Your task to perform on an android device: empty trash in the gmail app Image 0: 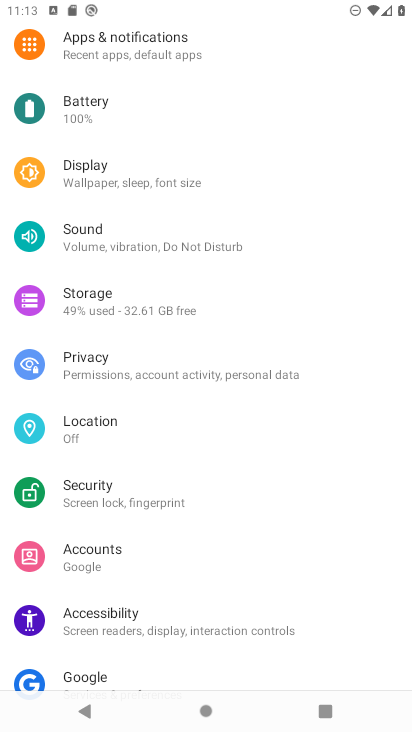
Step 0: press home button
Your task to perform on an android device: empty trash in the gmail app Image 1: 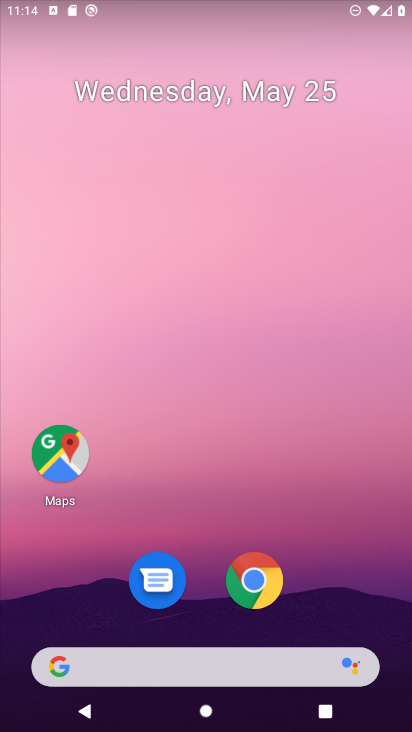
Step 1: drag from (66, 489) to (231, 153)
Your task to perform on an android device: empty trash in the gmail app Image 2: 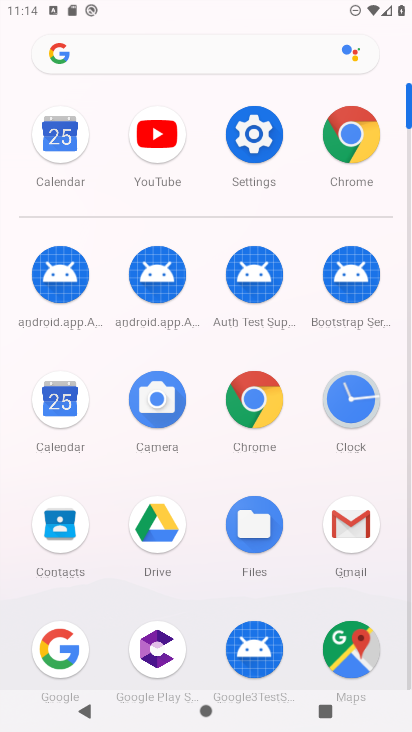
Step 2: click (355, 543)
Your task to perform on an android device: empty trash in the gmail app Image 3: 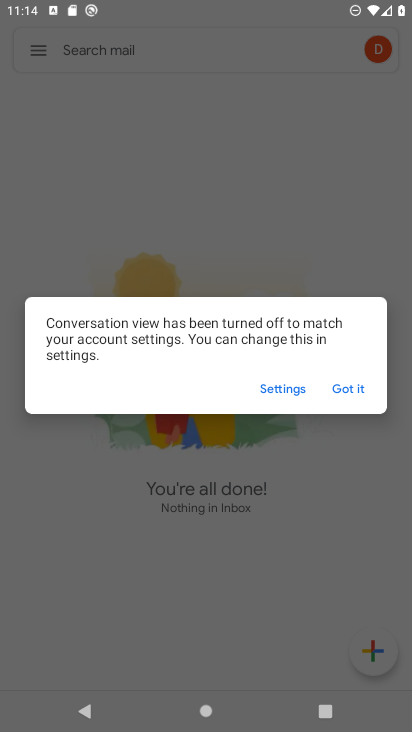
Step 3: click (353, 390)
Your task to perform on an android device: empty trash in the gmail app Image 4: 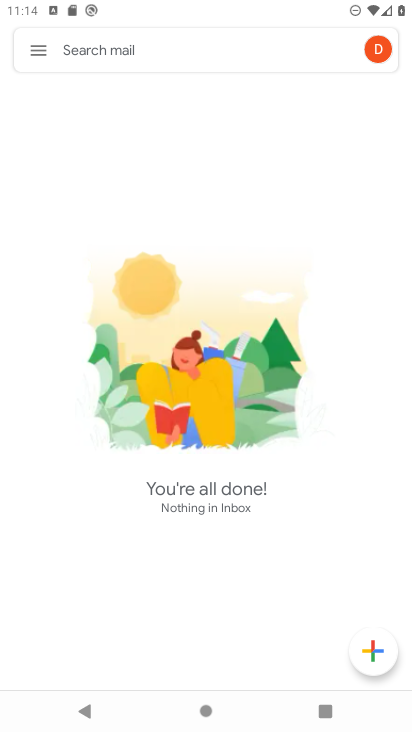
Step 4: click (28, 48)
Your task to perform on an android device: empty trash in the gmail app Image 5: 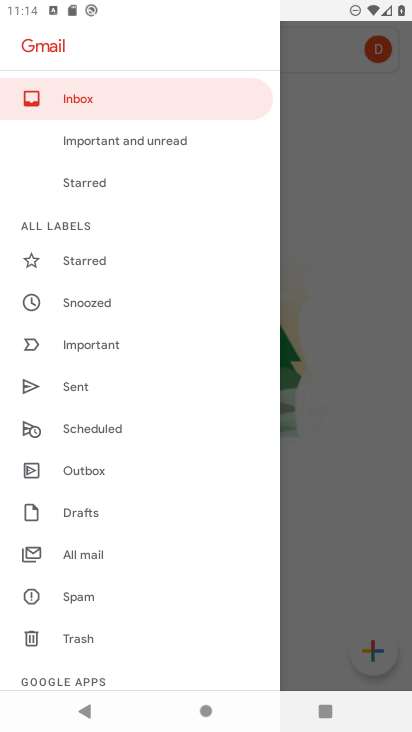
Step 5: click (85, 637)
Your task to perform on an android device: empty trash in the gmail app Image 6: 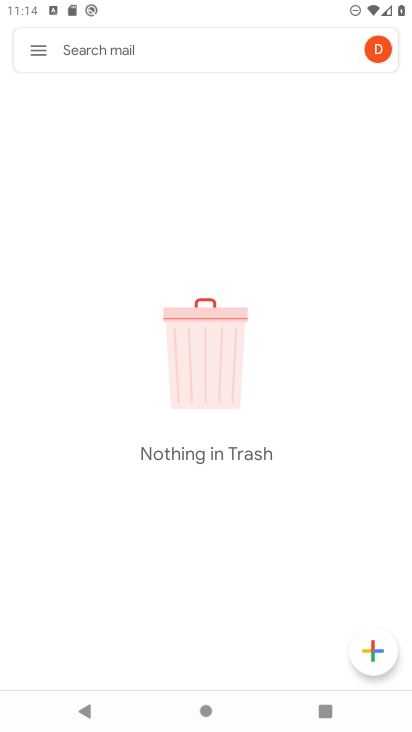
Step 6: task complete